Your task to perform on an android device: turn on airplane mode Image 0: 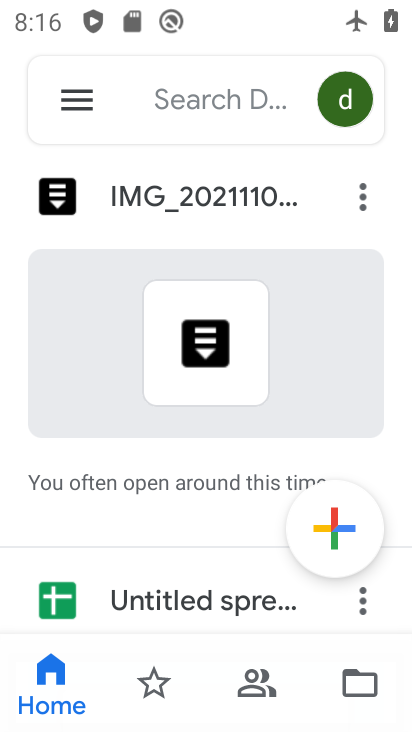
Step 0: press home button
Your task to perform on an android device: turn on airplane mode Image 1: 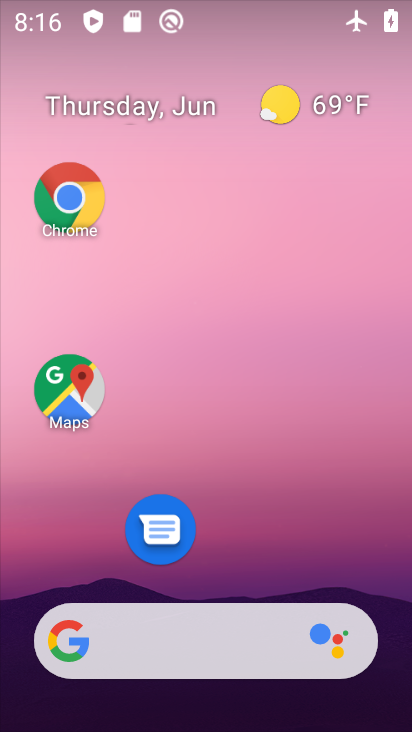
Step 1: drag from (230, 580) to (210, 8)
Your task to perform on an android device: turn on airplane mode Image 2: 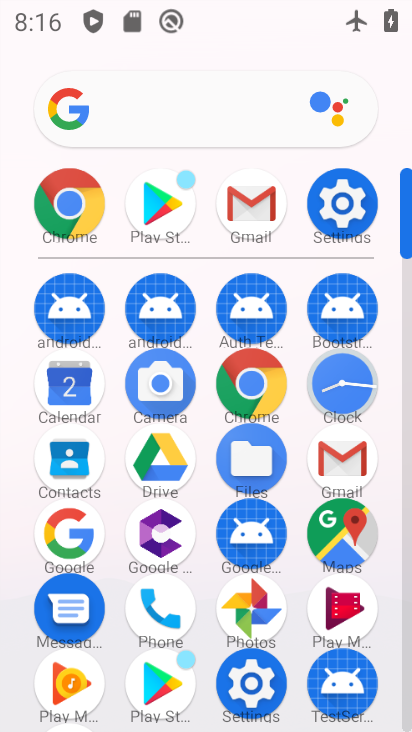
Step 2: click (353, 203)
Your task to perform on an android device: turn on airplane mode Image 3: 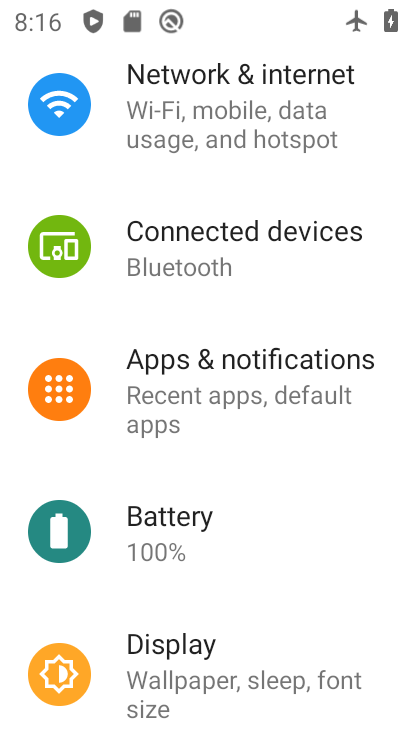
Step 3: drag from (353, 203) to (334, 512)
Your task to perform on an android device: turn on airplane mode Image 4: 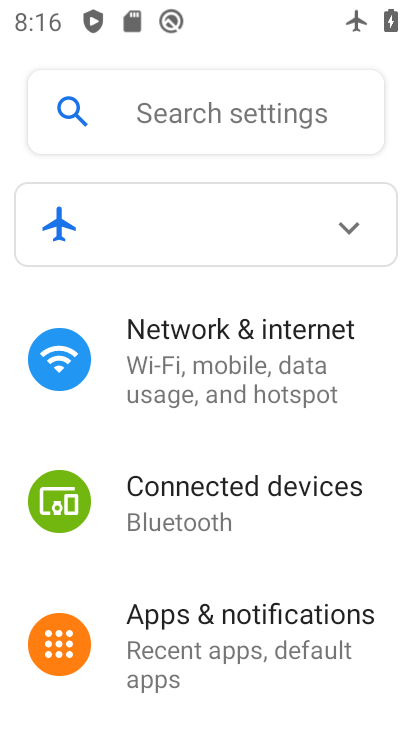
Step 4: click (257, 345)
Your task to perform on an android device: turn on airplane mode Image 5: 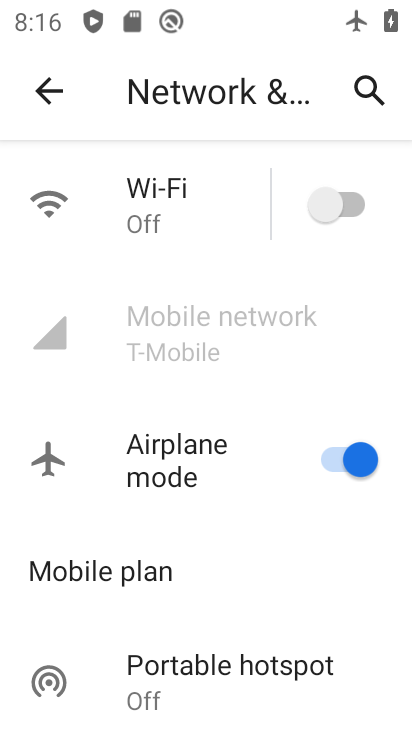
Step 5: task complete